Your task to perform on an android device: Is it going to rain tomorrow? Image 0: 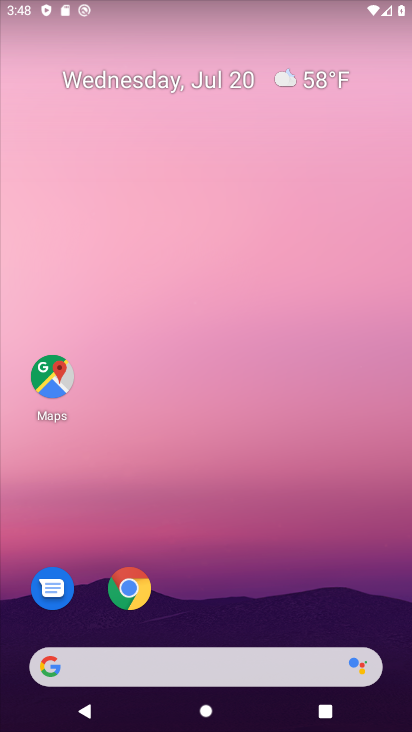
Step 0: drag from (213, 639) to (228, 57)
Your task to perform on an android device: Is it going to rain tomorrow? Image 1: 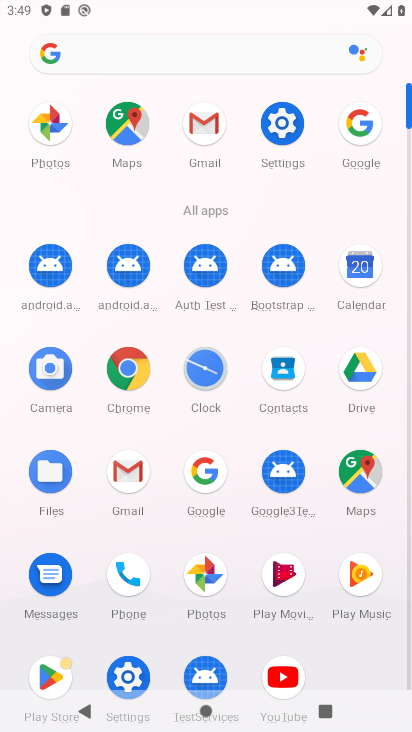
Step 1: click (349, 125)
Your task to perform on an android device: Is it going to rain tomorrow? Image 2: 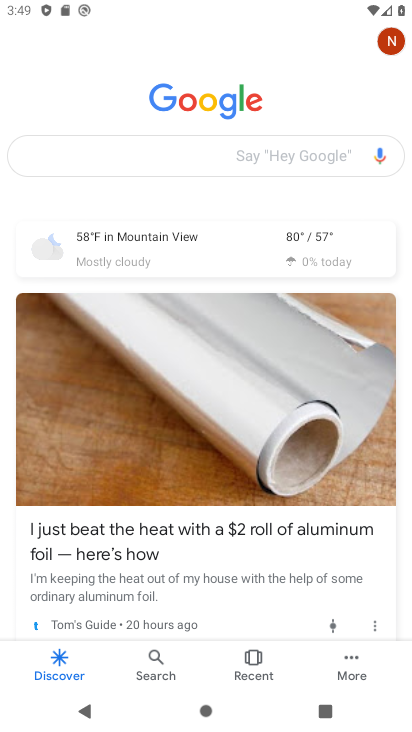
Step 2: click (134, 159)
Your task to perform on an android device: Is it going to rain tomorrow? Image 3: 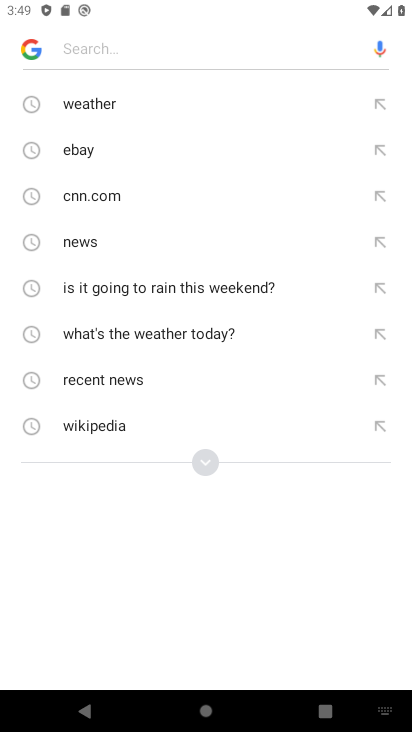
Step 3: click (212, 467)
Your task to perform on an android device: Is it going to rain tomorrow? Image 4: 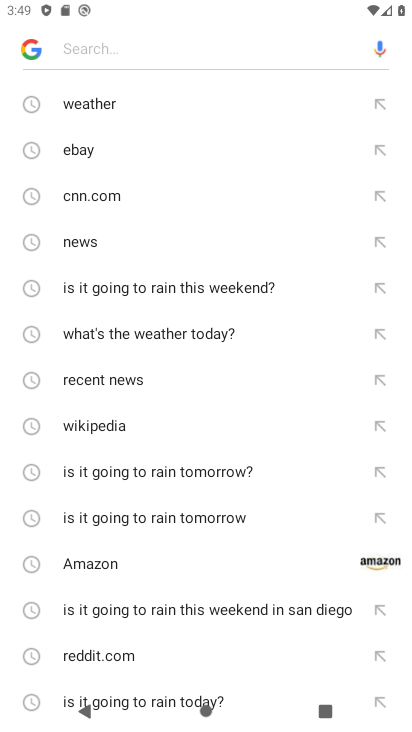
Step 4: click (181, 480)
Your task to perform on an android device: Is it going to rain tomorrow? Image 5: 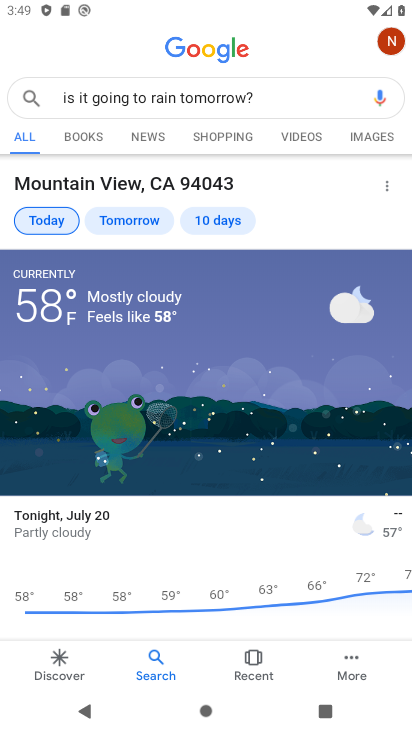
Step 5: click (136, 218)
Your task to perform on an android device: Is it going to rain tomorrow? Image 6: 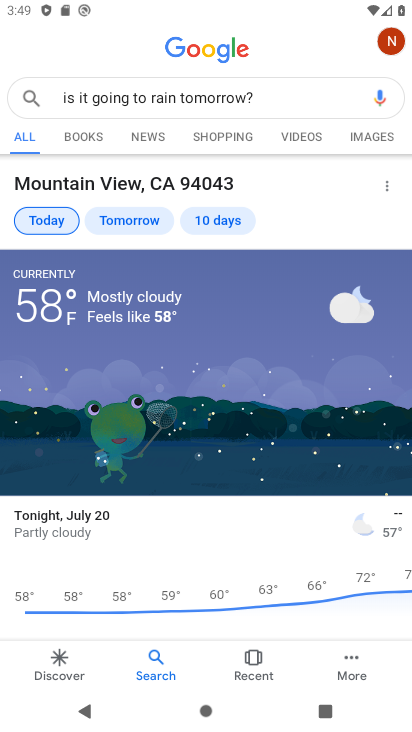
Step 6: click (128, 224)
Your task to perform on an android device: Is it going to rain tomorrow? Image 7: 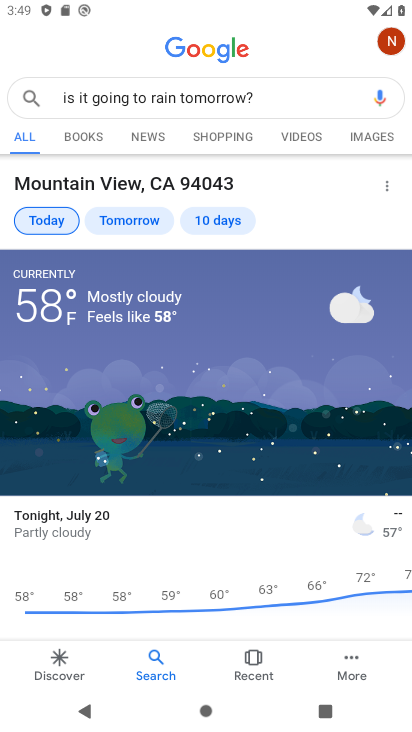
Step 7: click (104, 220)
Your task to perform on an android device: Is it going to rain tomorrow? Image 8: 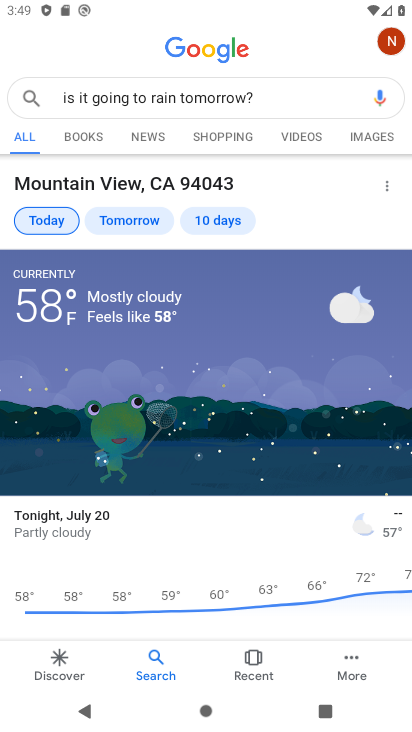
Step 8: click (146, 221)
Your task to perform on an android device: Is it going to rain tomorrow? Image 9: 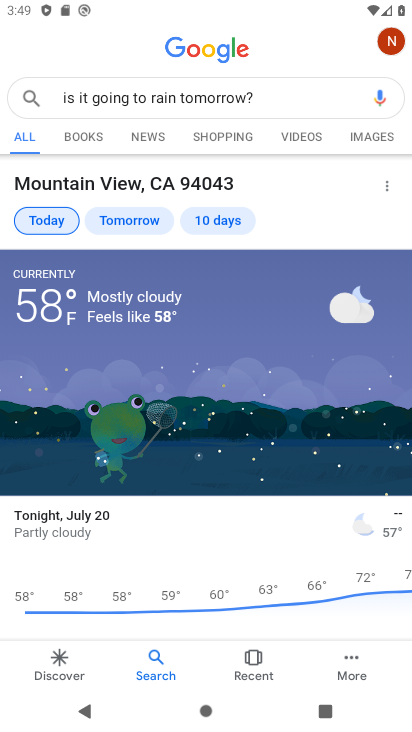
Step 9: click (134, 221)
Your task to perform on an android device: Is it going to rain tomorrow? Image 10: 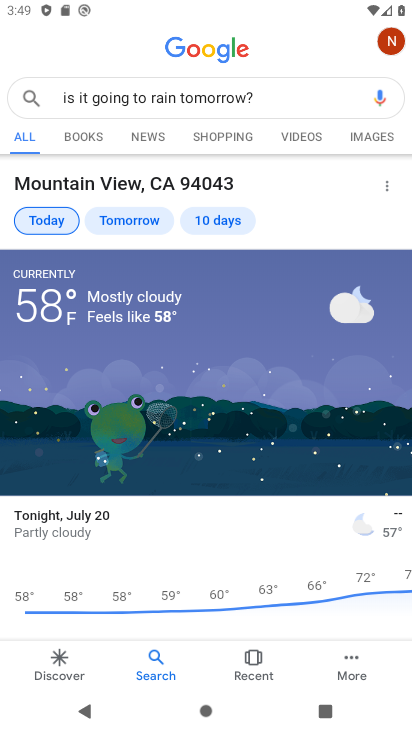
Step 10: task complete